Your task to perform on an android device: Search for Italian restaurants on Maps Image 0: 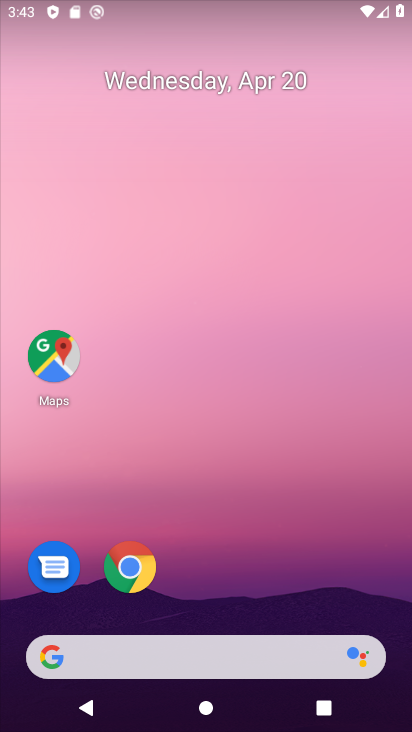
Step 0: drag from (376, 186) to (401, 93)
Your task to perform on an android device: Search for Italian restaurants on Maps Image 1: 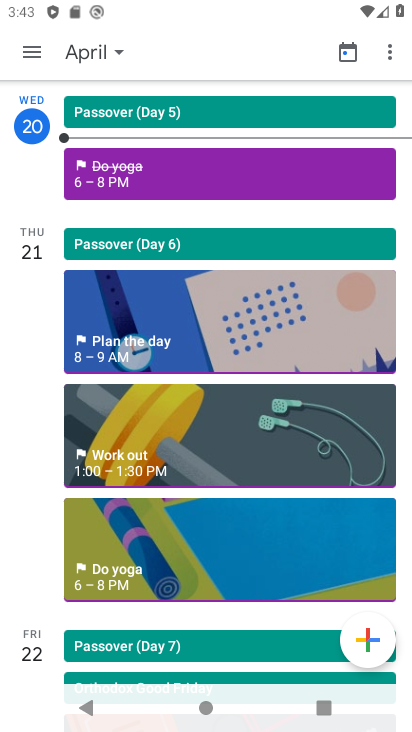
Step 1: press home button
Your task to perform on an android device: Search for Italian restaurants on Maps Image 2: 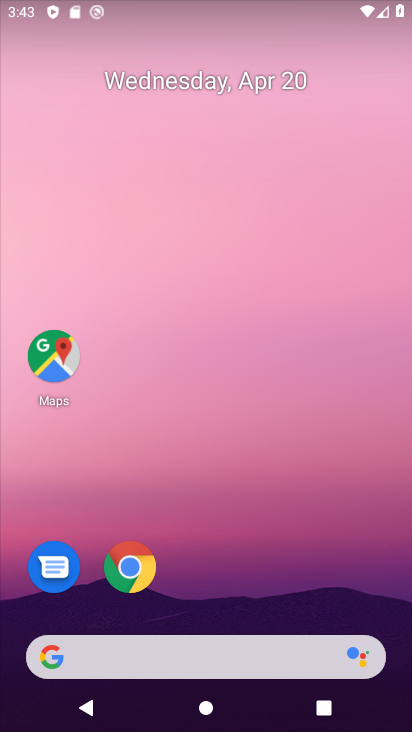
Step 2: click (51, 367)
Your task to perform on an android device: Search for Italian restaurants on Maps Image 3: 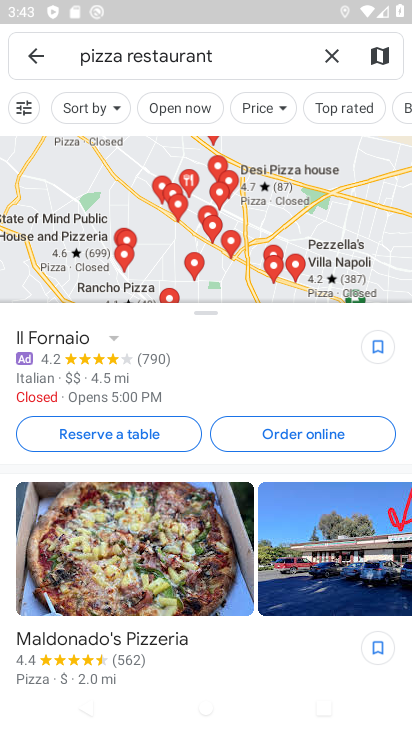
Step 3: click (332, 65)
Your task to perform on an android device: Search for Italian restaurants on Maps Image 4: 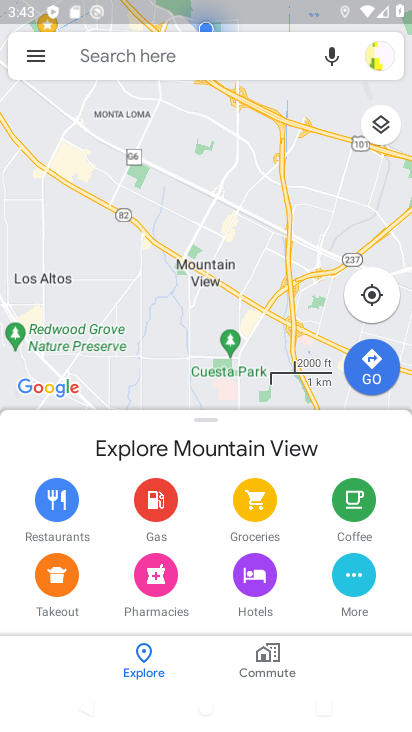
Step 4: click (217, 58)
Your task to perform on an android device: Search for Italian restaurants on Maps Image 5: 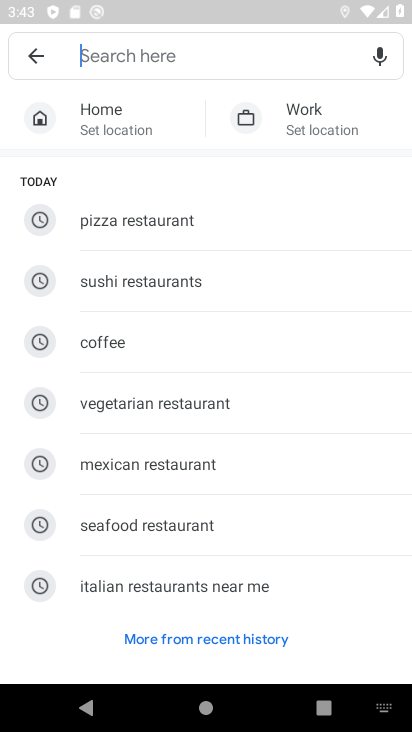
Step 5: type "Italian restaurants"
Your task to perform on an android device: Search for Italian restaurants on Maps Image 6: 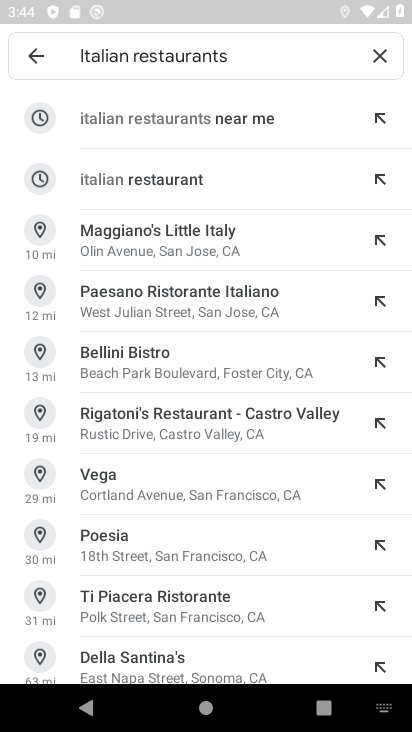
Step 6: click (182, 176)
Your task to perform on an android device: Search for Italian restaurants on Maps Image 7: 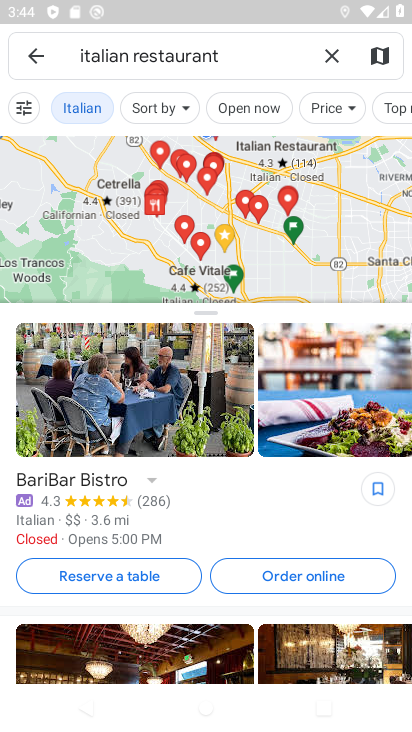
Step 7: task complete